Your task to perform on an android device: see tabs open on other devices in the chrome app Image 0: 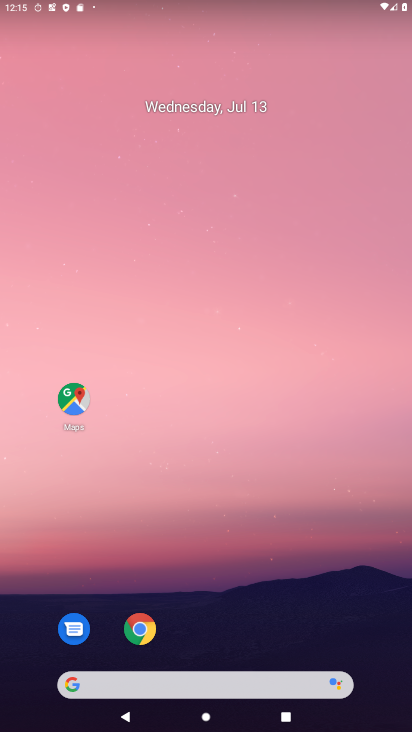
Step 0: click (134, 631)
Your task to perform on an android device: see tabs open on other devices in the chrome app Image 1: 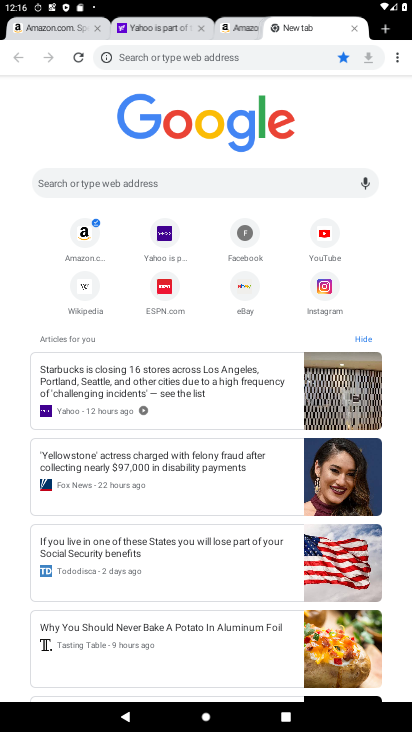
Step 1: click (398, 58)
Your task to perform on an android device: see tabs open on other devices in the chrome app Image 2: 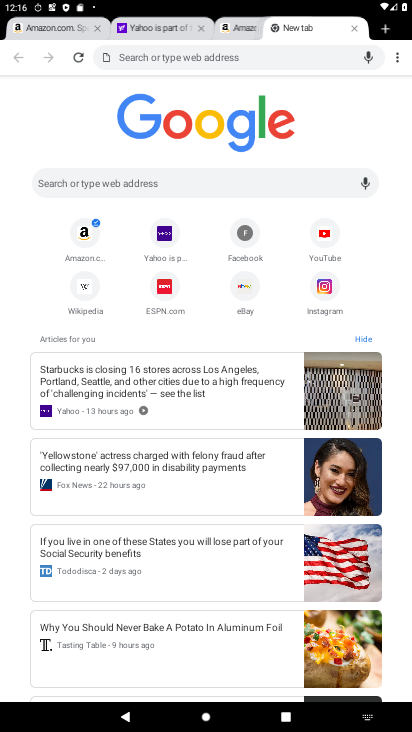
Step 2: task complete